Your task to perform on an android device: Add amazon basics triple a to the cart on costco.com, then select checkout. Image 0: 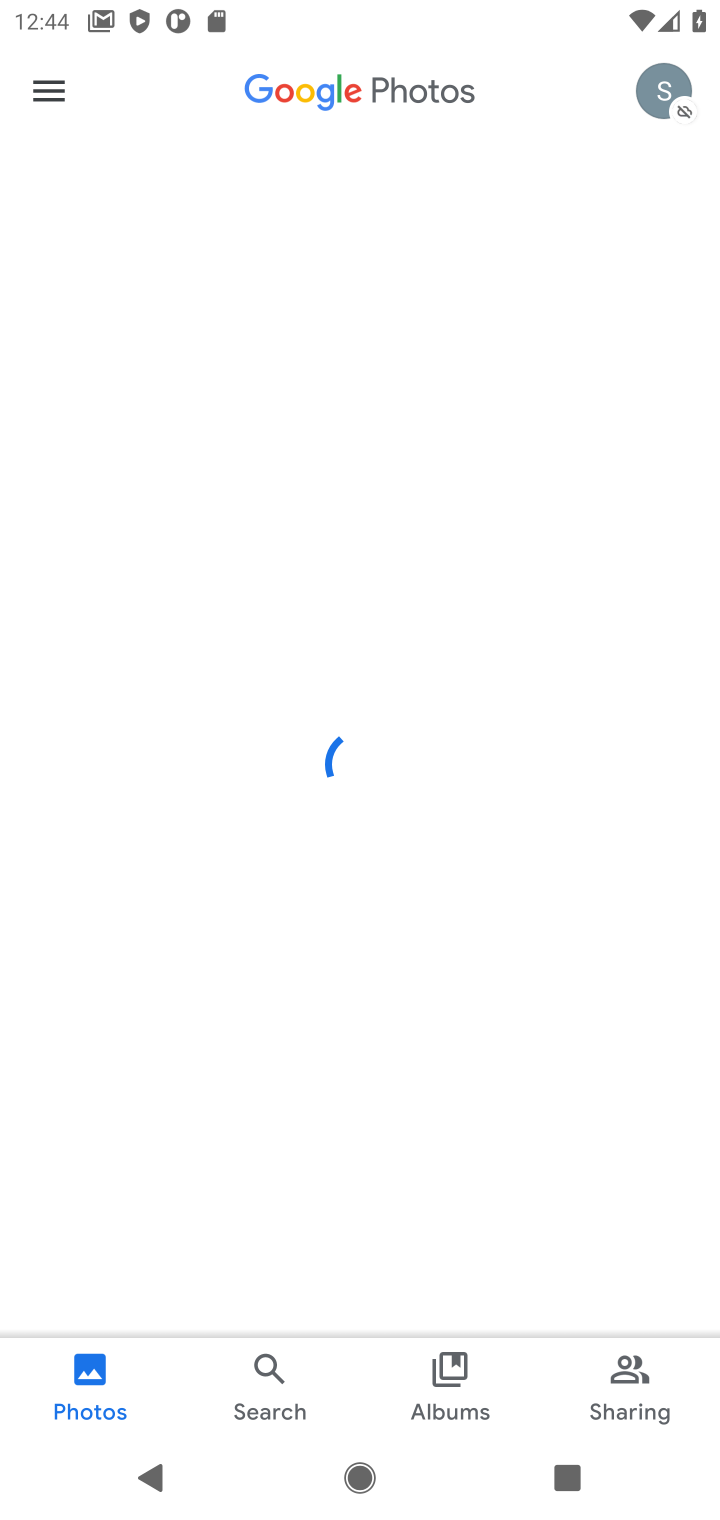
Step 0: press home button
Your task to perform on an android device: Add amazon basics triple a to the cart on costco.com, then select checkout. Image 1: 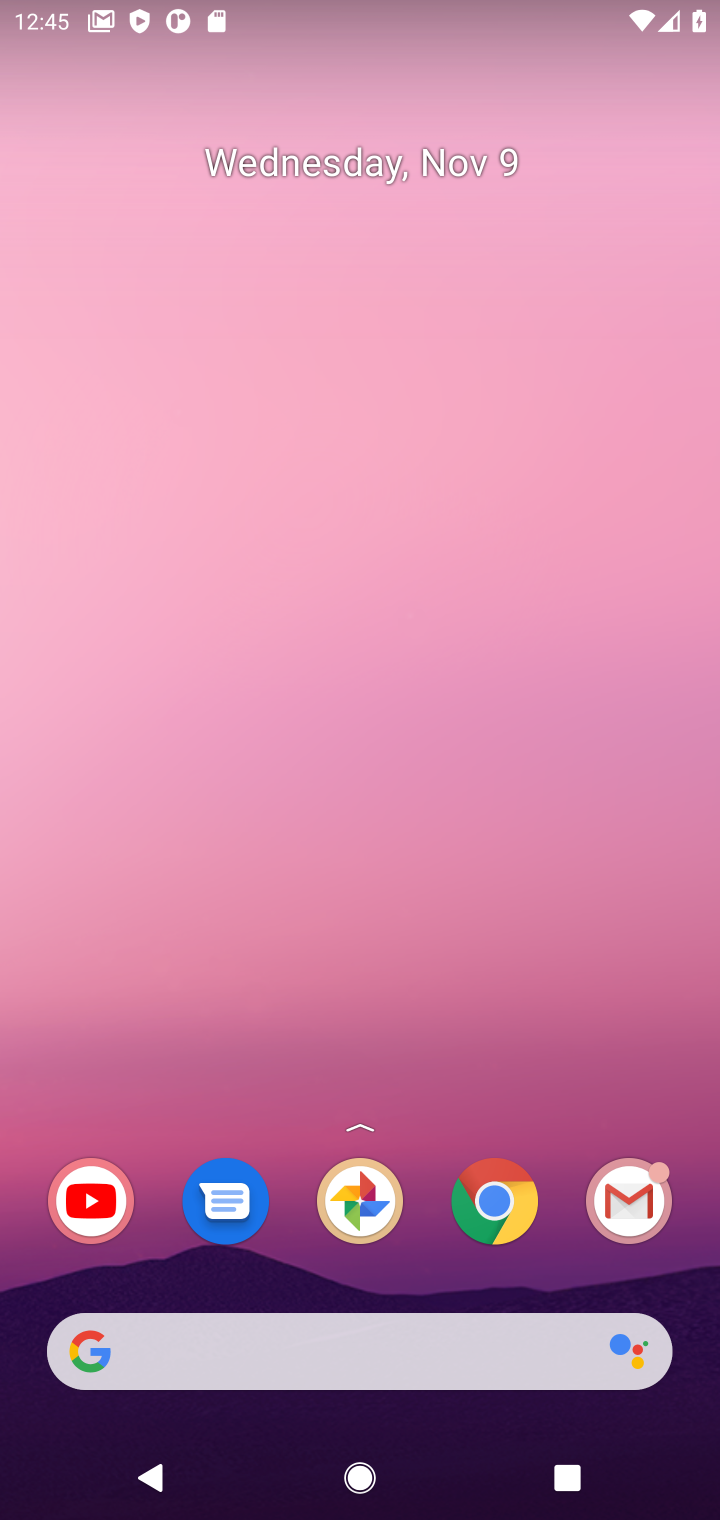
Step 1: click (313, 1355)
Your task to perform on an android device: Add amazon basics triple a to the cart on costco.com, then select checkout. Image 2: 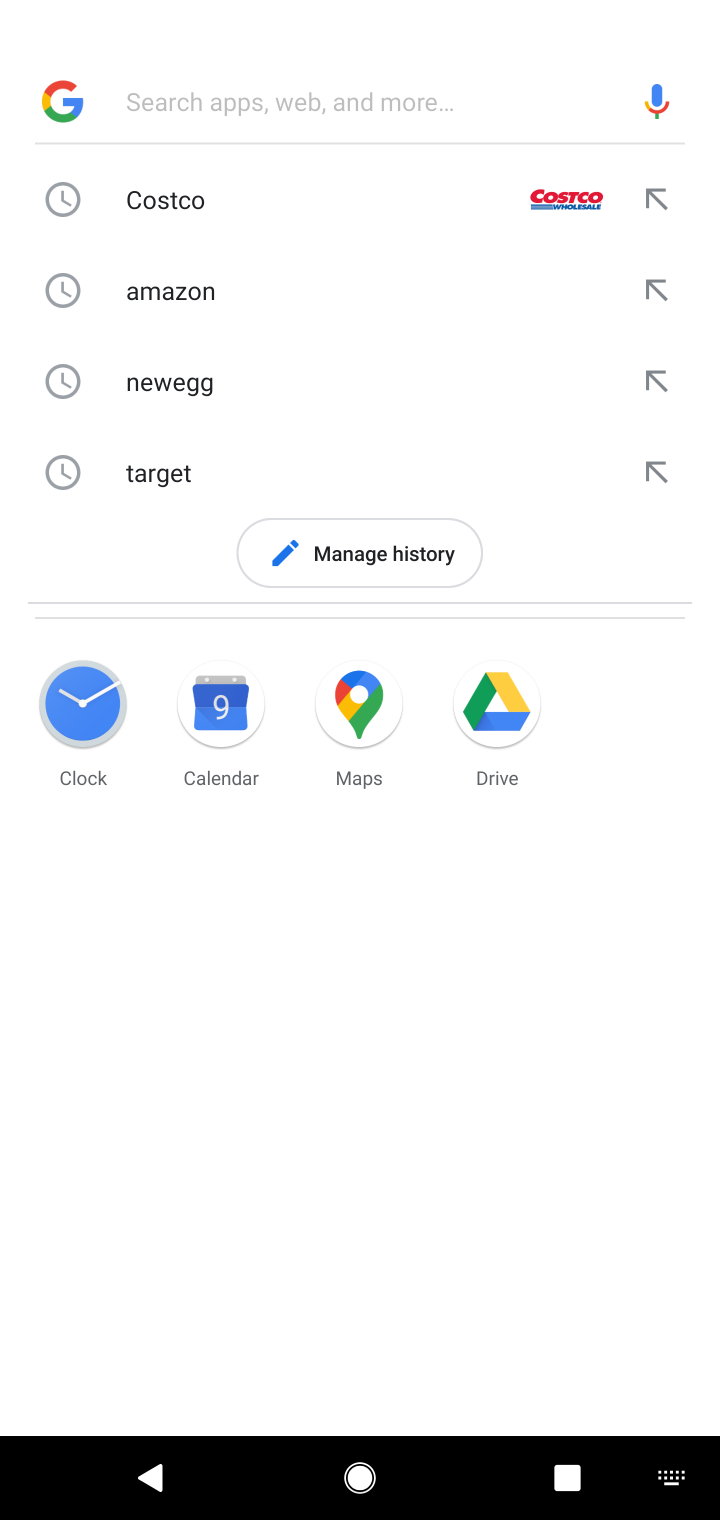
Step 2: type "costco.com"
Your task to perform on an android device: Add amazon basics triple a to the cart on costco.com, then select checkout. Image 3: 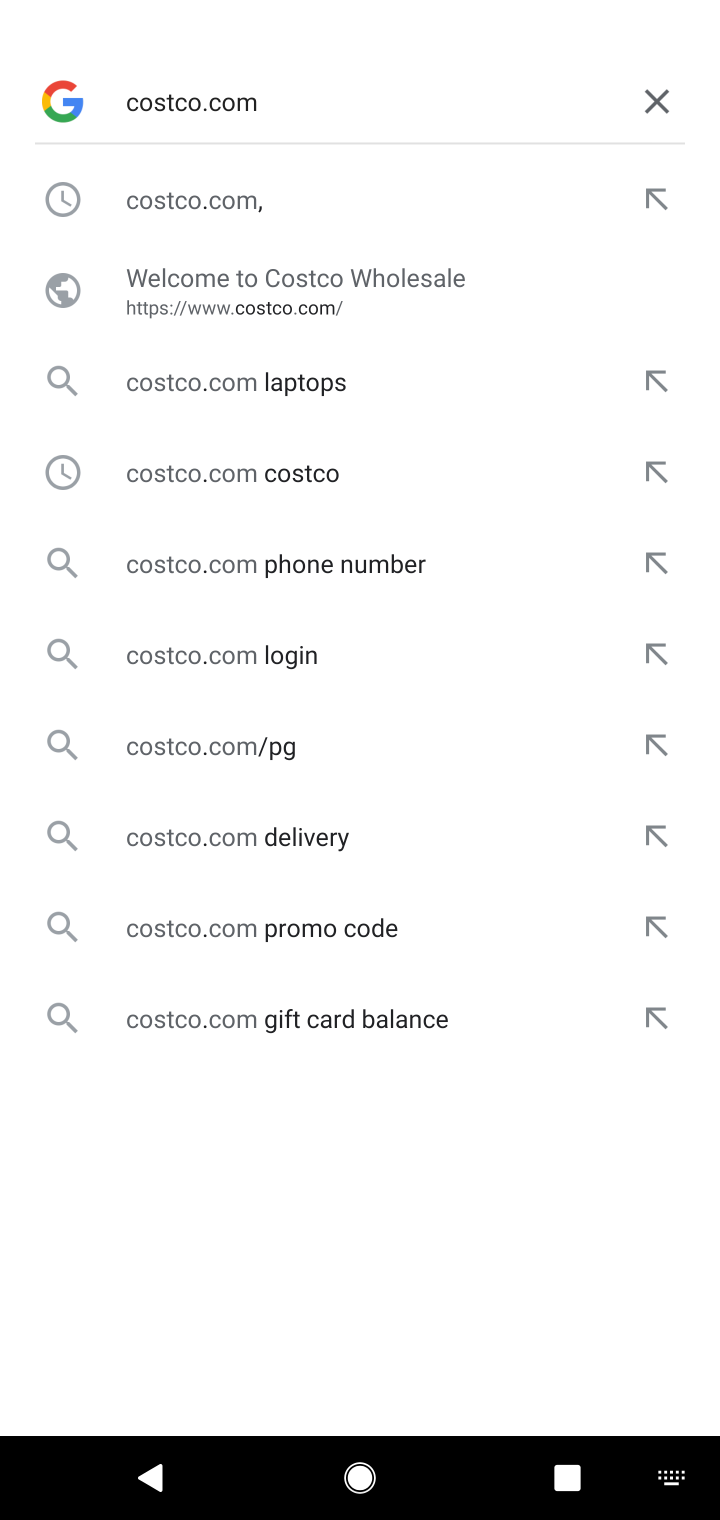
Step 3: click (221, 194)
Your task to perform on an android device: Add amazon basics triple a to the cart on costco.com, then select checkout. Image 4: 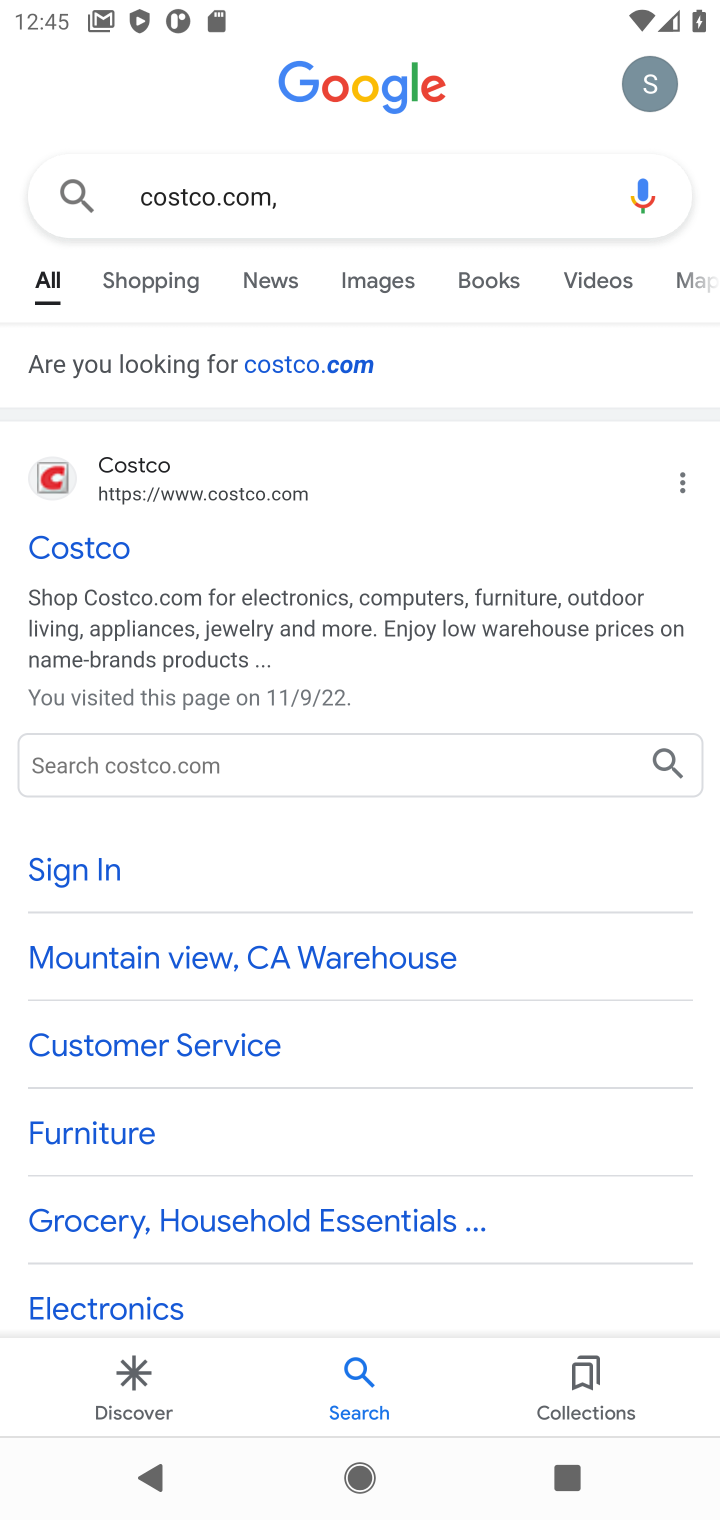
Step 4: click (70, 544)
Your task to perform on an android device: Add amazon basics triple a to the cart on costco.com, then select checkout. Image 5: 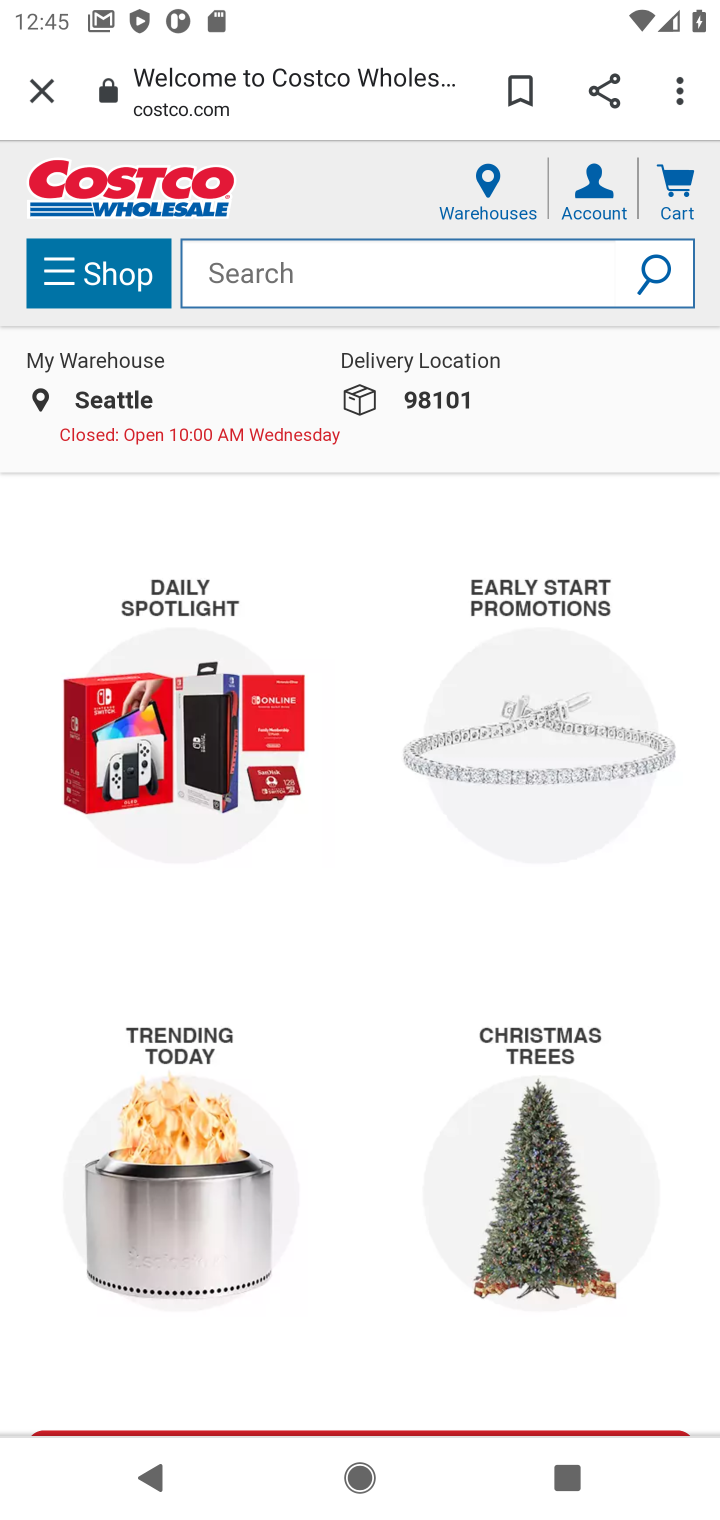
Step 5: click (295, 266)
Your task to perform on an android device: Add amazon basics triple a to the cart on costco.com, then select checkout. Image 6: 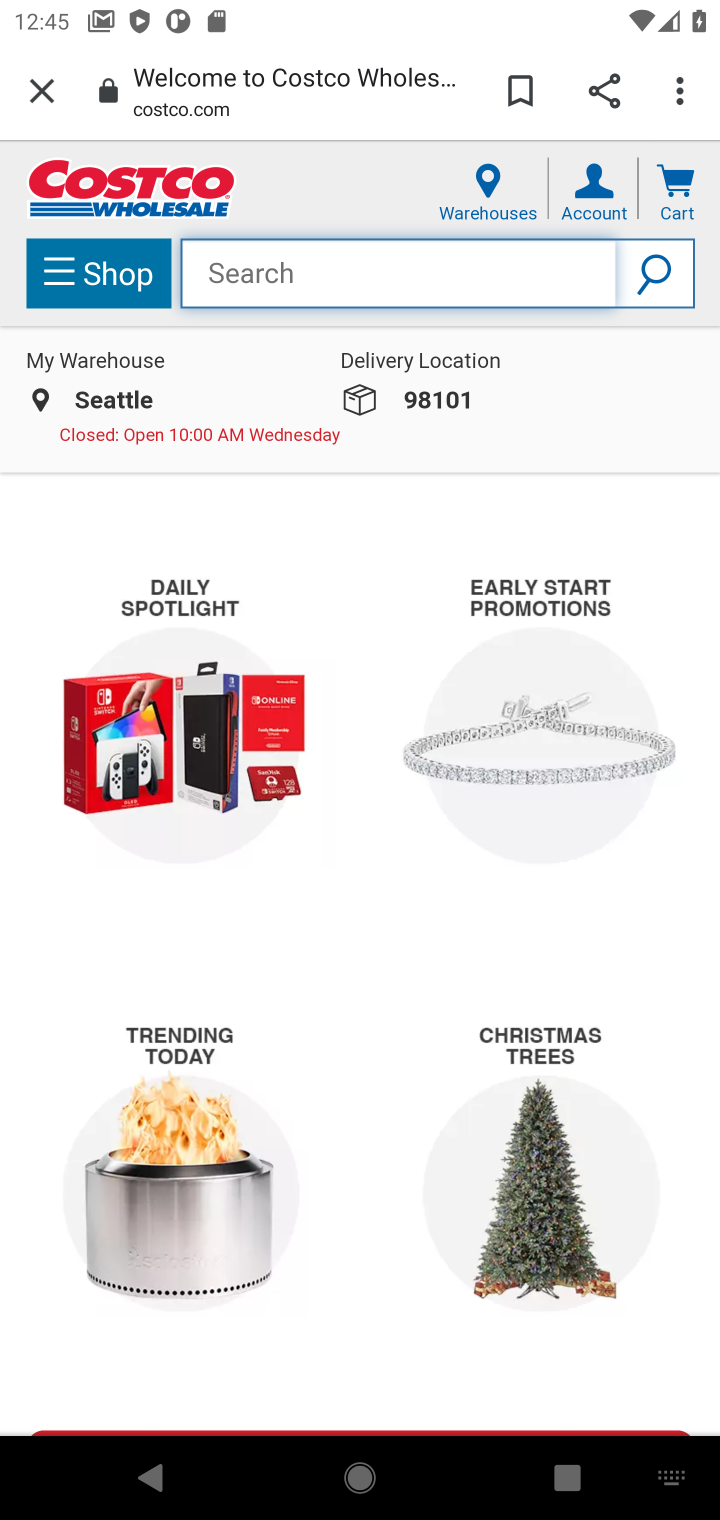
Step 6: type "amazon basics triple a to"
Your task to perform on an android device: Add amazon basics triple a to the cart on costco.com, then select checkout. Image 7: 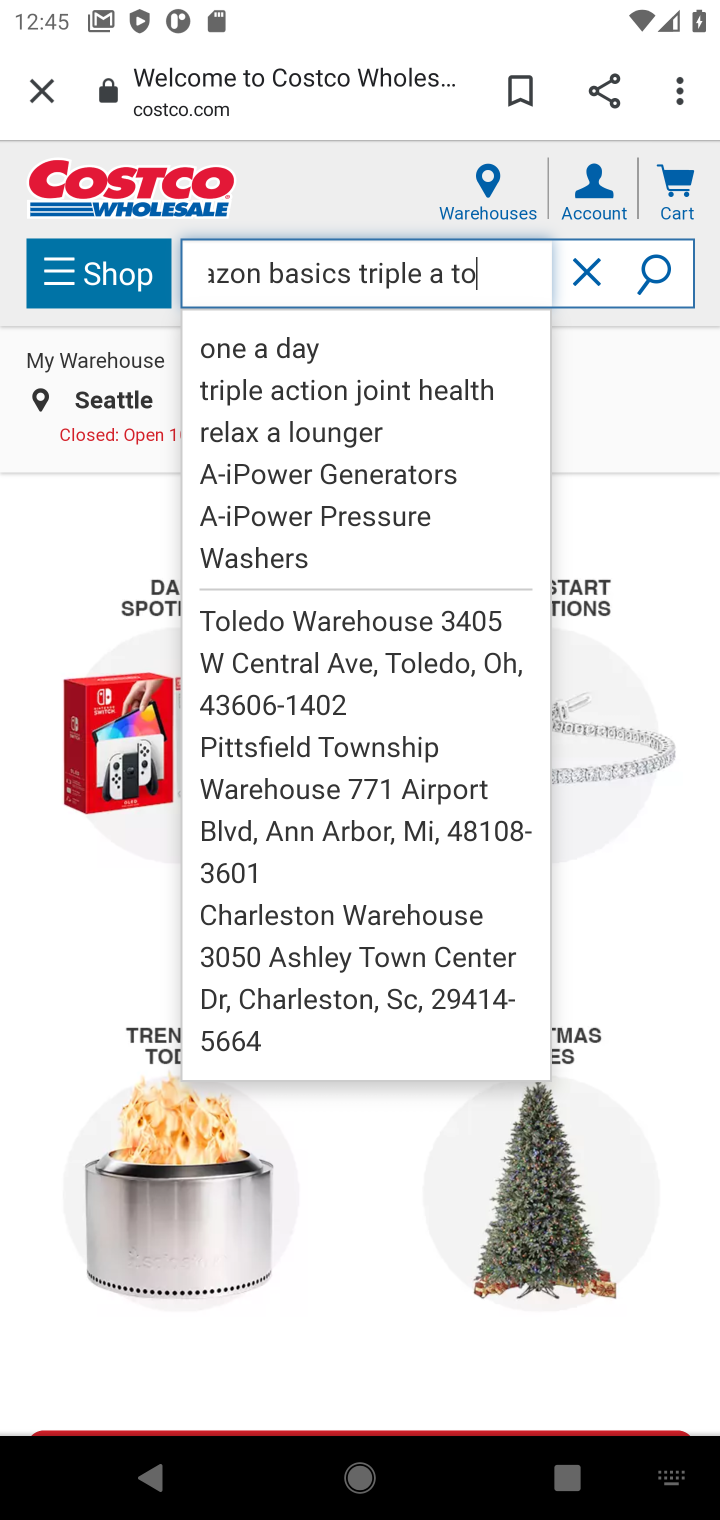
Step 7: click (661, 268)
Your task to perform on an android device: Add amazon basics triple a to the cart on costco.com, then select checkout. Image 8: 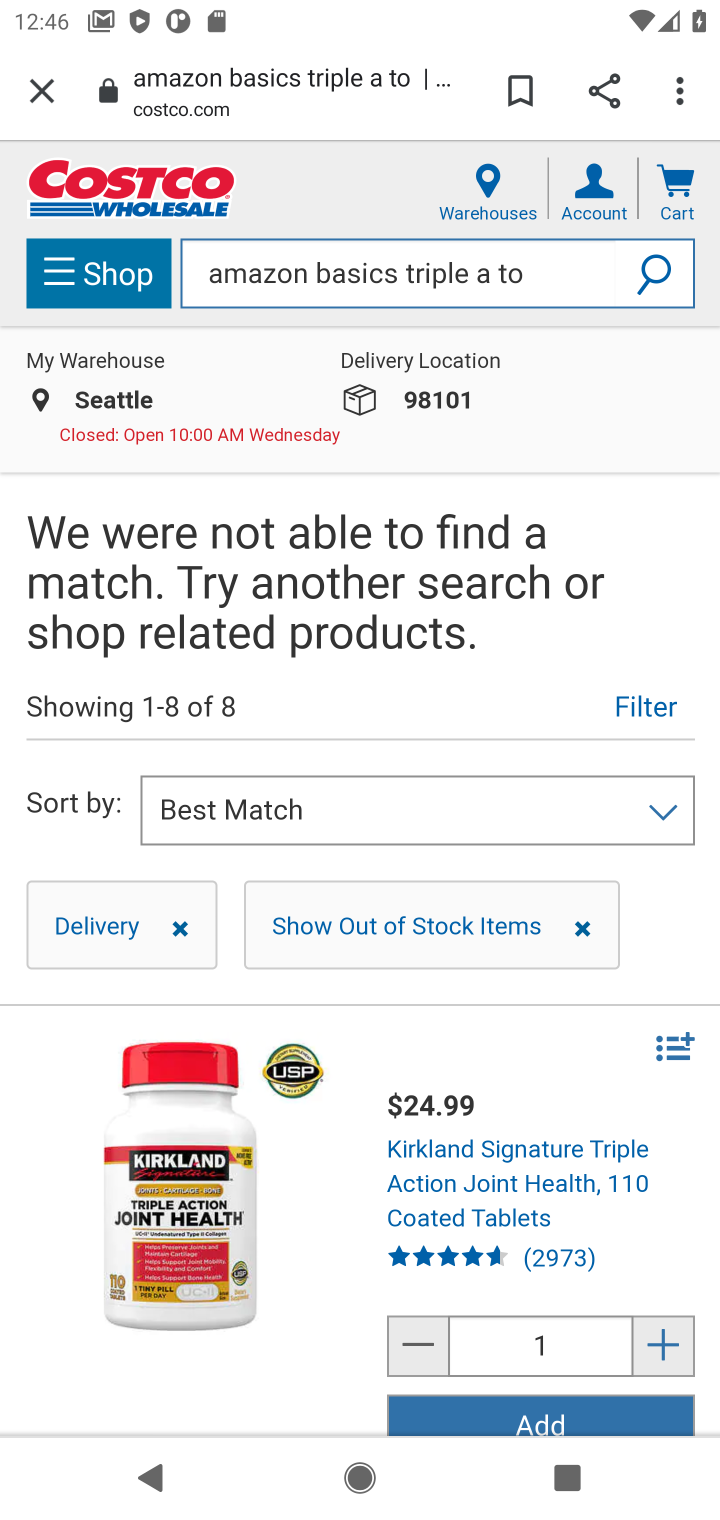
Step 8: drag from (449, 1166) to (450, 659)
Your task to perform on an android device: Add amazon basics triple a to the cart on costco.com, then select checkout. Image 9: 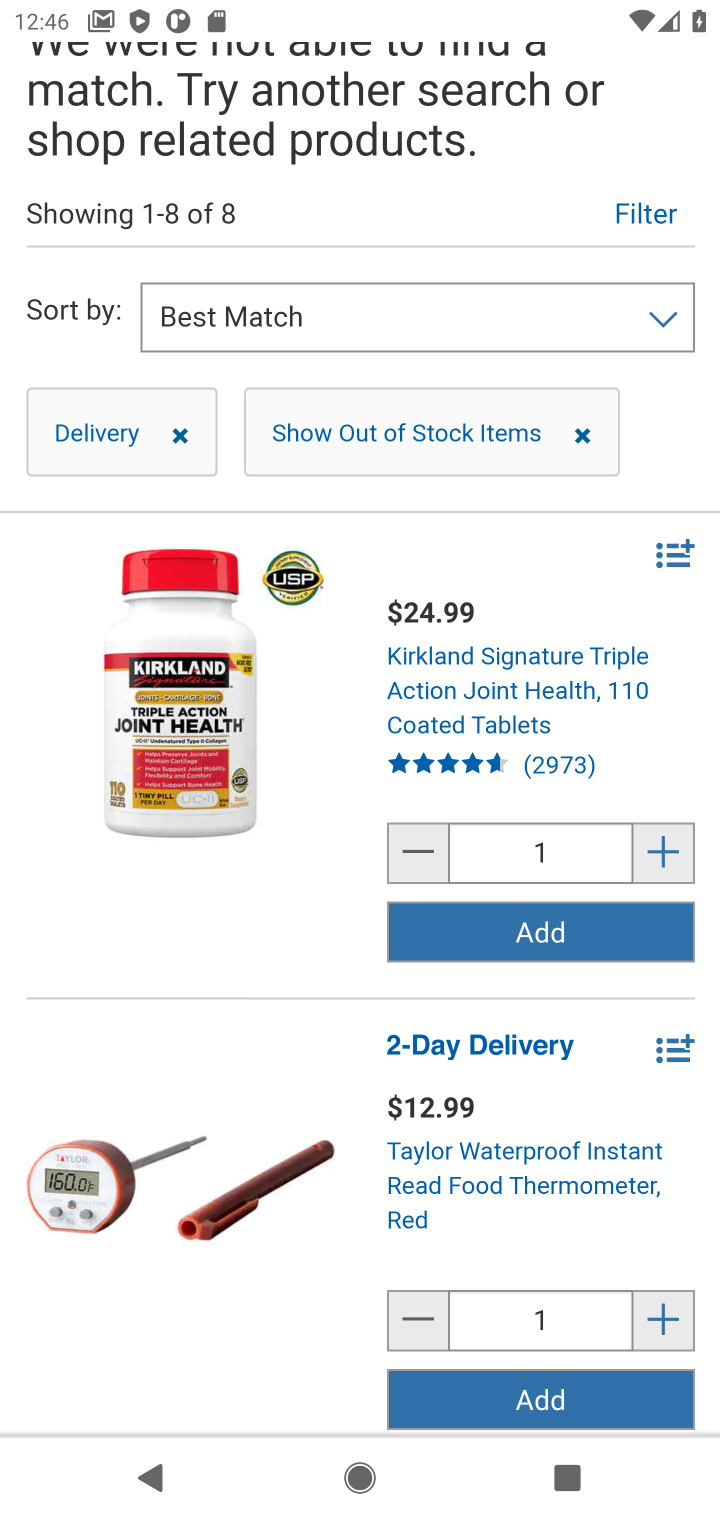
Step 9: click (526, 952)
Your task to perform on an android device: Add amazon basics triple a to the cart on costco.com, then select checkout. Image 10: 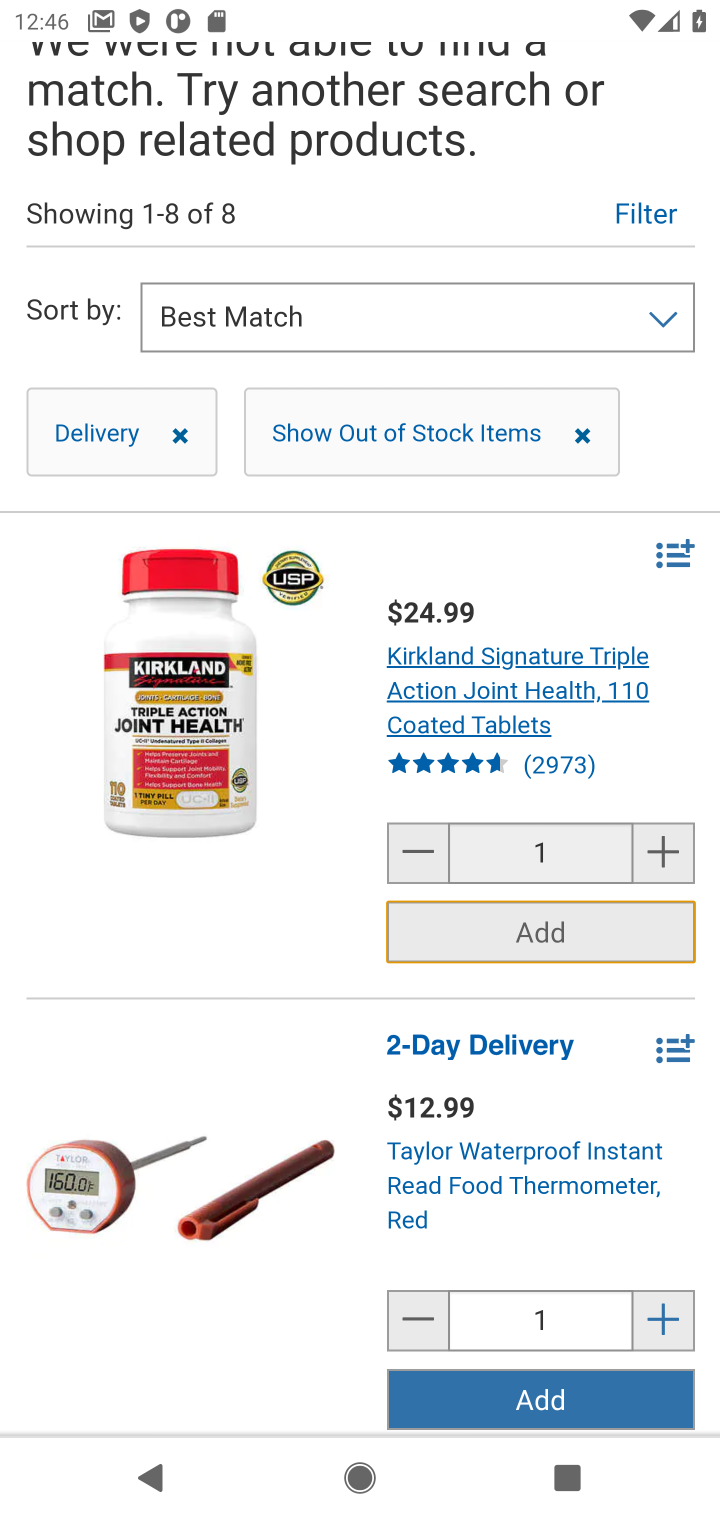
Step 10: task complete